Your task to perform on an android device: turn off improve location accuracy Image 0: 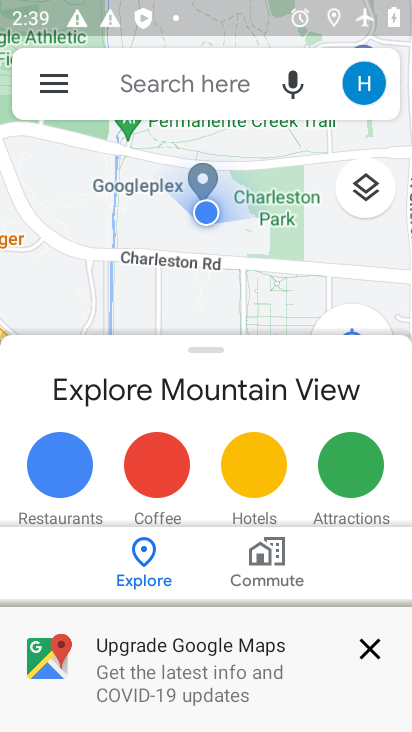
Step 0: press home button
Your task to perform on an android device: turn off improve location accuracy Image 1: 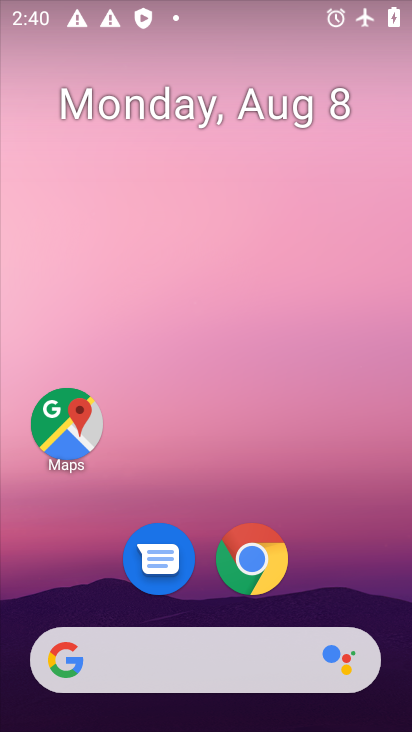
Step 1: drag from (199, 661) to (269, 185)
Your task to perform on an android device: turn off improve location accuracy Image 2: 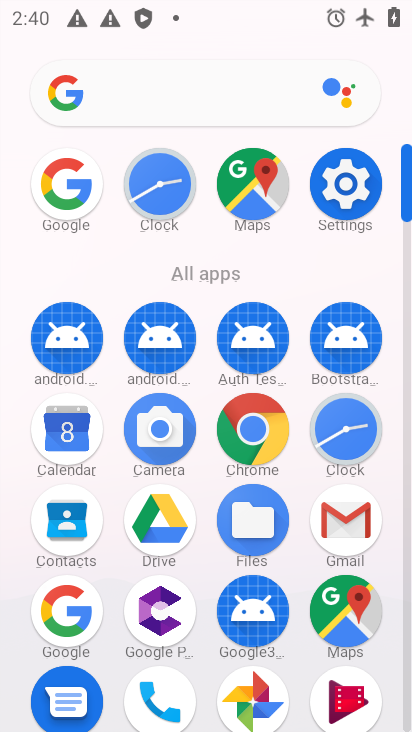
Step 2: click (346, 185)
Your task to perform on an android device: turn off improve location accuracy Image 3: 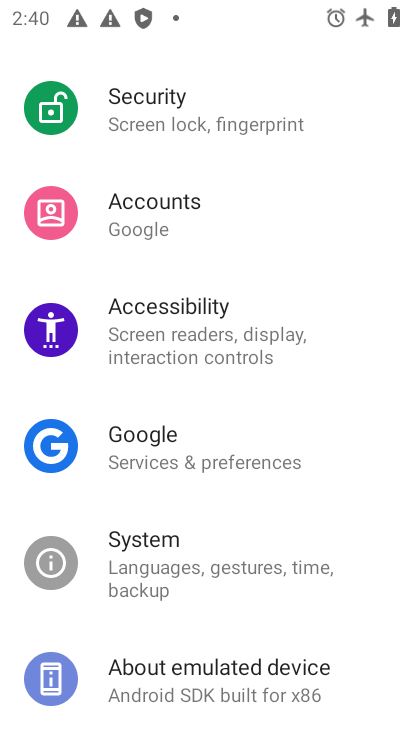
Step 3: drag from (229, 432) to (211, 565)
Your task to perform on an android device: turn off improve location accuracy Image 4: 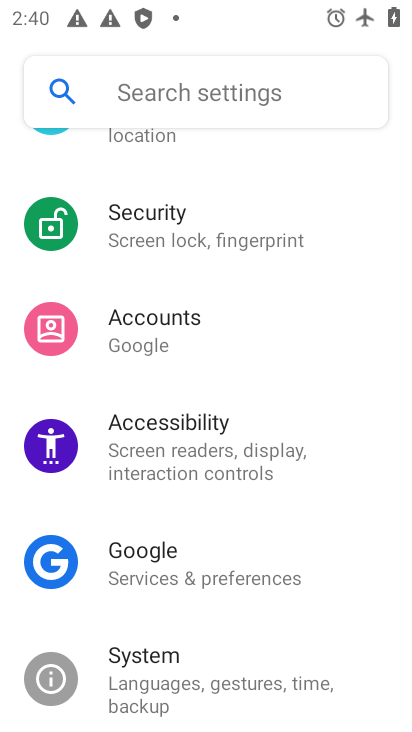
Step 4: drag from (239, 376) to (237, 581)
Your task to perform on an android device: turn off improve location accuracy Image 5: 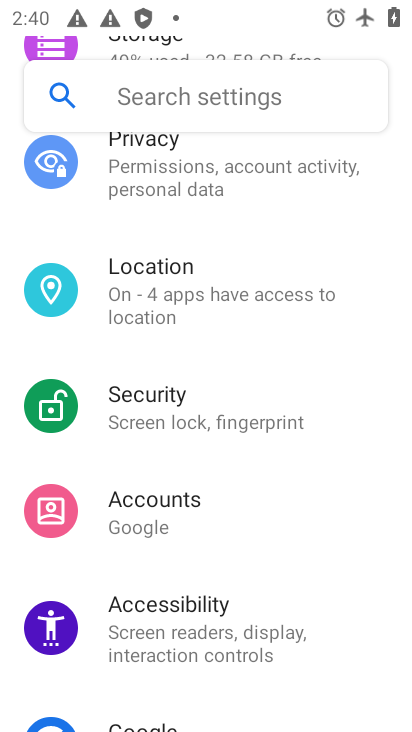
Step 5: click (168, 268)
Your task to perform on an android device: turn off improve location accuracy Image 6: 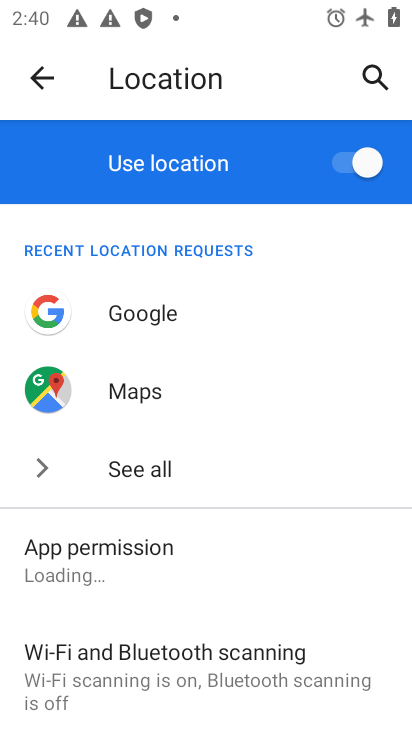
Step 6: drag from (198, 599) to (305, 419)
Your task to perform on an android device: turn off improve location accuracy Image 7: 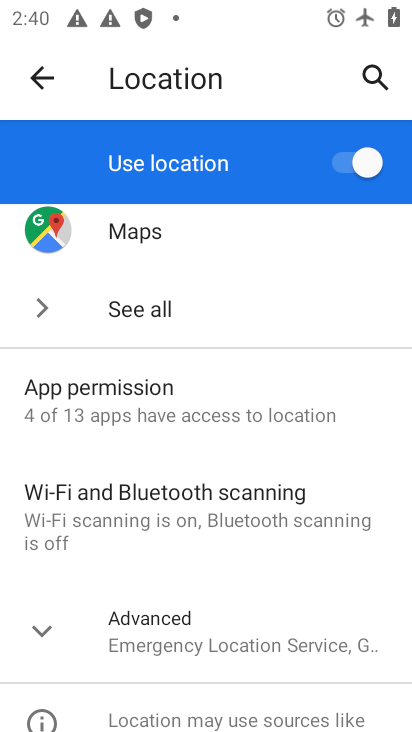
Step 7: drag from (222, 592) to (312, 459)
Your task to perform on an android device: turn off improve location accuracy Image 8: 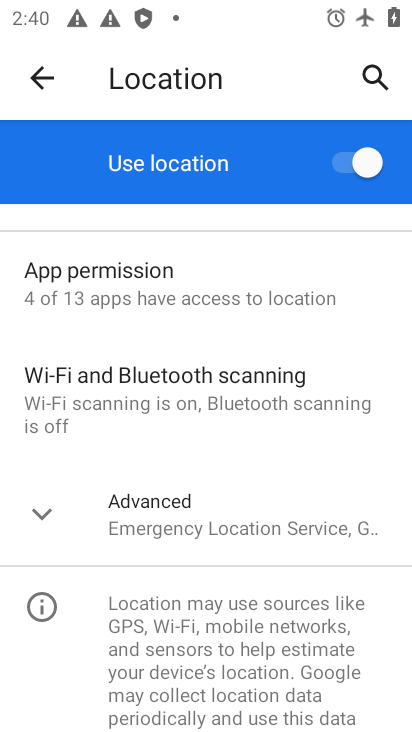
Step 8: click (211, 533)
Your task to perform on an android device: turn off improve location accuracy Image 9: 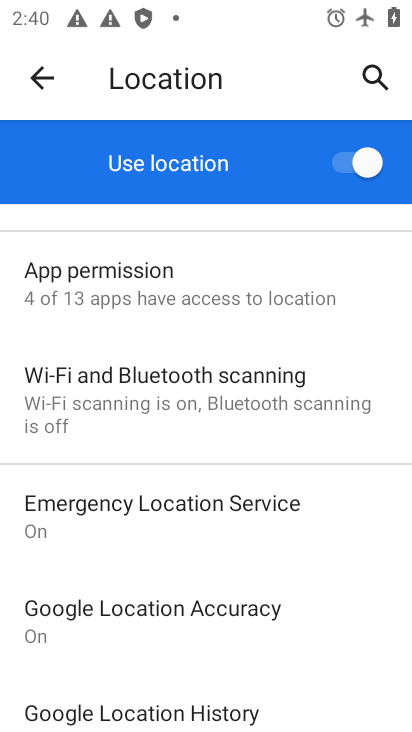
Step 9: drag from (194, 646) to (251, 563)
Your task to perform on an android device: turn off improve location accuracy Image 10: 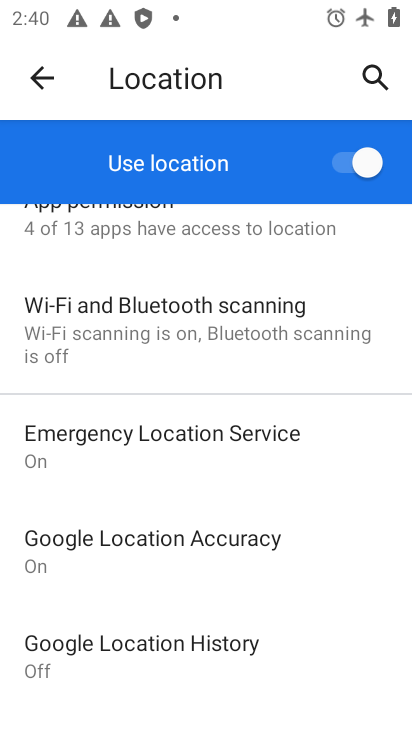
Step 10: click (257, 542)
Your task to perform on an android device: turn off improve location accuracy Image 11: 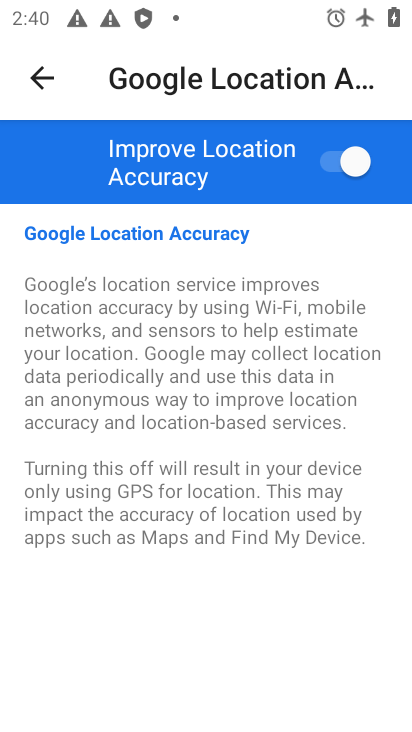
Step 11: click (326, 162)
Your task to perform on an android device: turn off improve location accuracy Image 12: 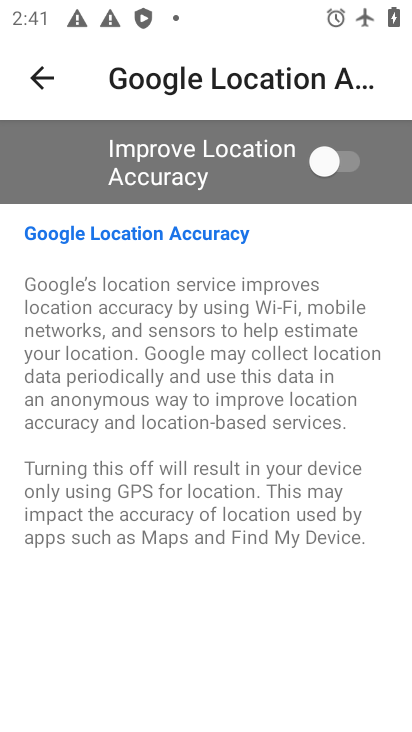
Step 12: task complete